Your task to perform on an android device: Open Chrome and go to settings Image 0: 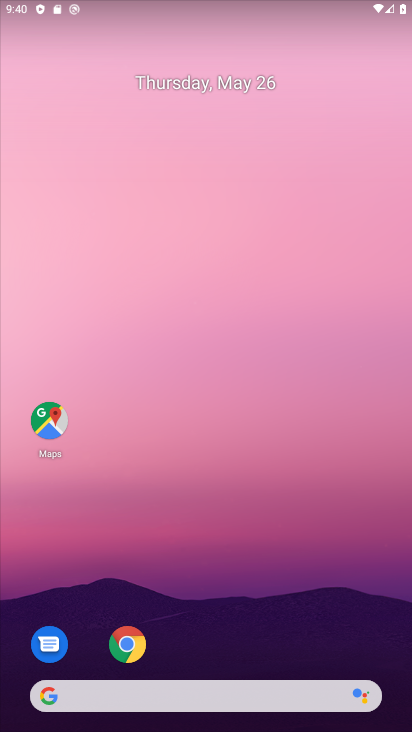
Step 0: click (114, 645)
Your task to perform on an android device: Open Chrome and go to settings Image 1: 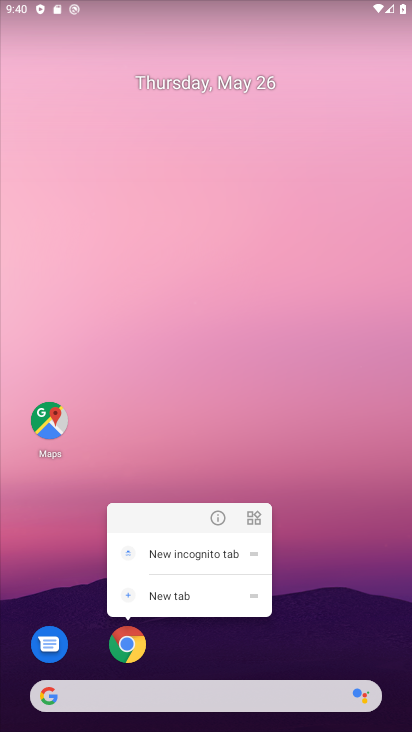
Step 1: click (131, 648)
Your task to perform on an android device: Open Chrome and go to settings Image 2: 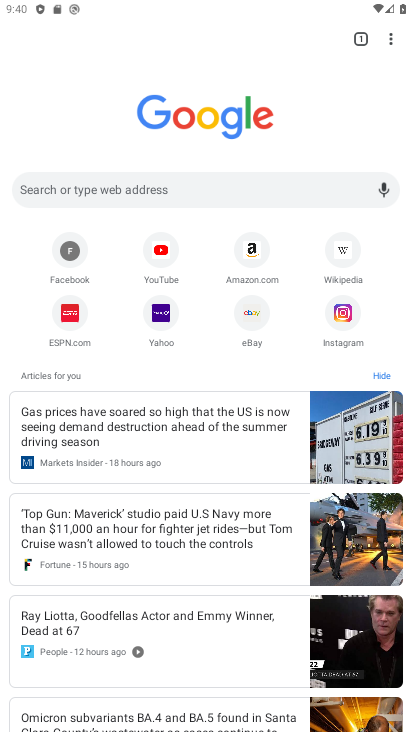
Step 2: click (387, 47)
Your task to perform on an android device: Open Chrome and go to settings Image 3: 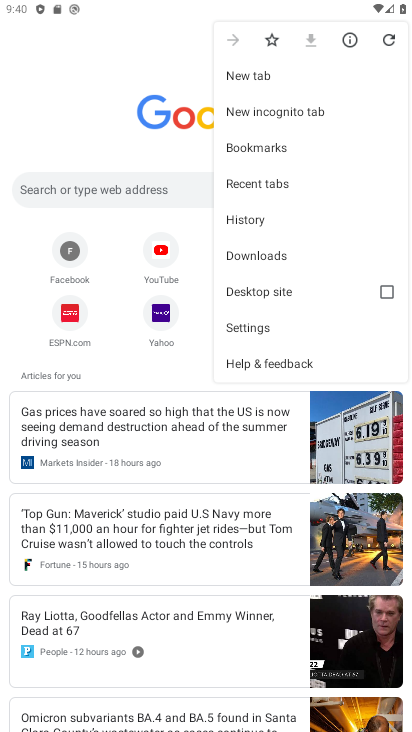
Step 3: click (257, 325)
Your task to perform on an android device: Open Chrome and go to settings Image 4: 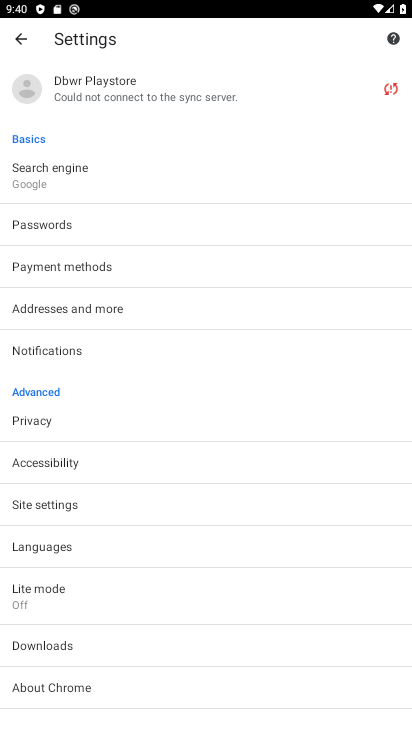
Step 4: task complete